Your task to perform on an android device: change notification settings in the gmail app Image 0: 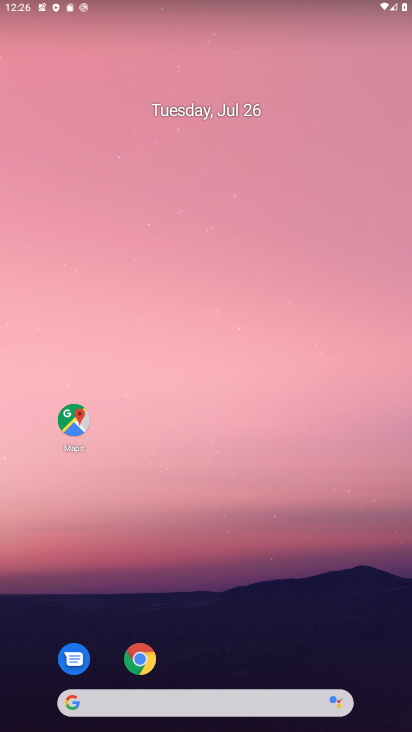
Step 0: drag from (186, 647) to (157, 37)
Your task to perform on an android device: change notification settings in the gmail app Image 1: 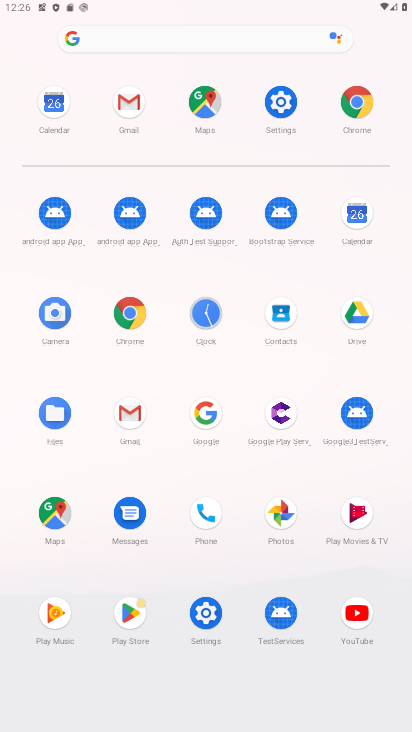
Step 1: click (124, 393)
Your task to perform on an android device: change notification settings in the gmail app Image 2: 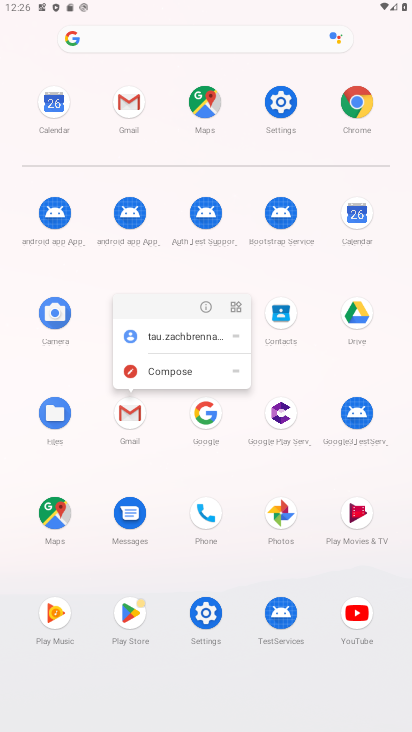
Step 2: click (201, 307)
Your task to perform on an android device: change notification settings in the gmail app Image 3: 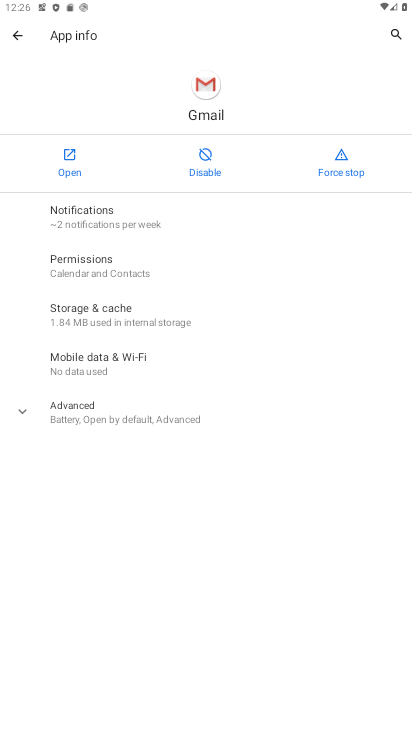
Step 3: click (75, 156)
Your task to perform on an android device: change notification settings in the gmail app Image 4: 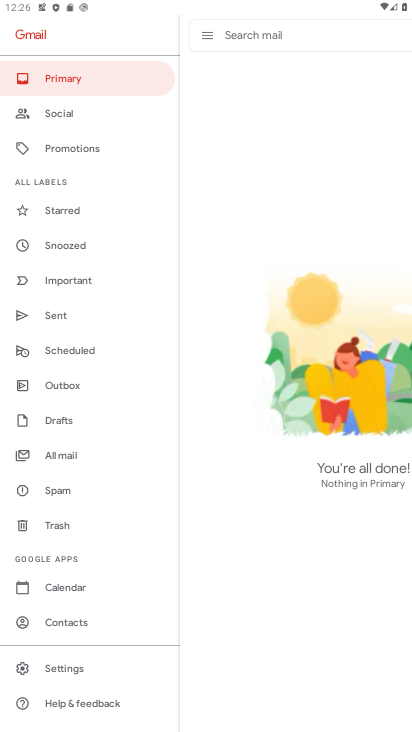
Step 4: click (75, 669)
Your task to perform on an android device: change notification settings in the gmail app Image 5: 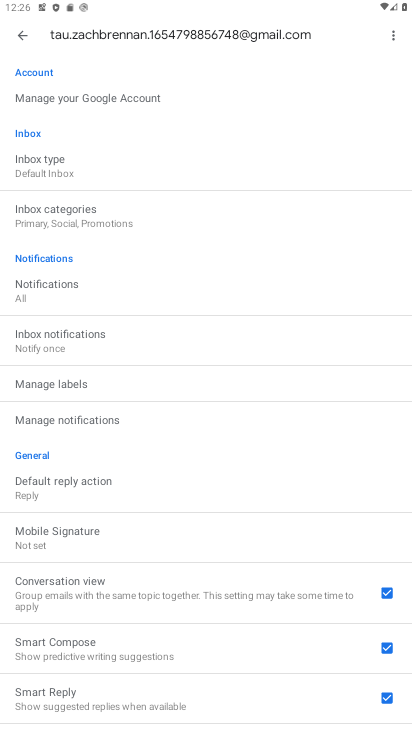
Step 5: click (84, 410)
Your task to perform on an android device: change notification settings in the gmail app Image 6: 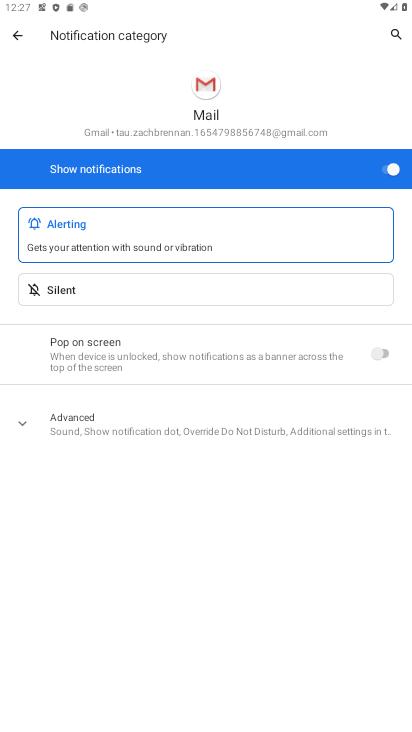
Step 6: task complete